Your task to perform on an android device: Go to privacy settings Image 0: 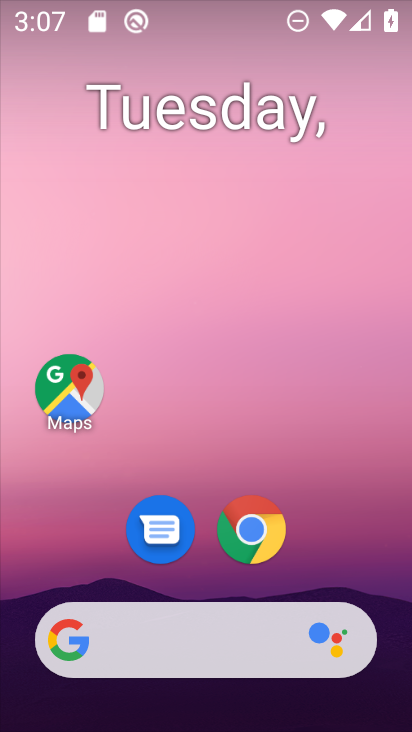
Step 0: drag from (308, 561) to (362, 211)
Your task to perform on an android device: Go to privacy settings Image 1: 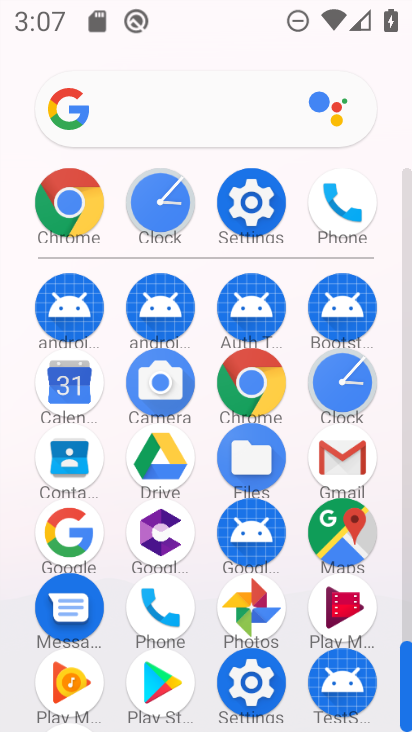
Step 1: click (256, 178)
Your task to perform on an android device: Go to privacy settings Image 2: 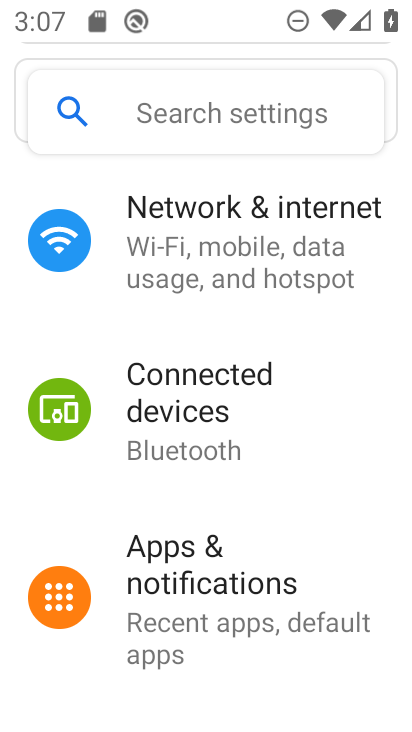
Step 2: drag from (196, 592) to (344, 181)
Your task to perform on an android device: Go to privacy settings Image 3: 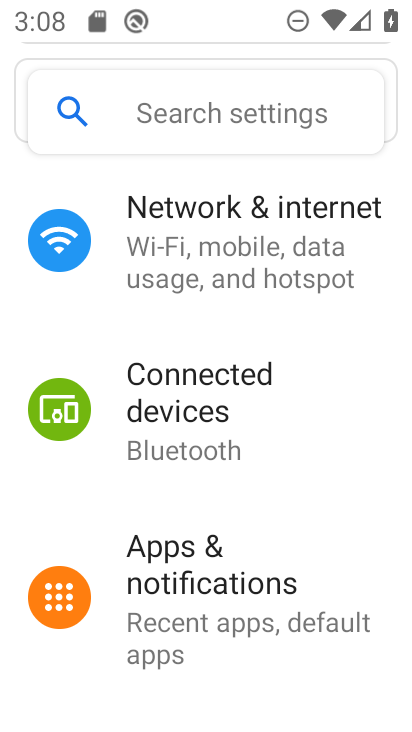
Step 3: click (243, 302)
Your task to perform on an android device: Go to privacy settings Image 4: 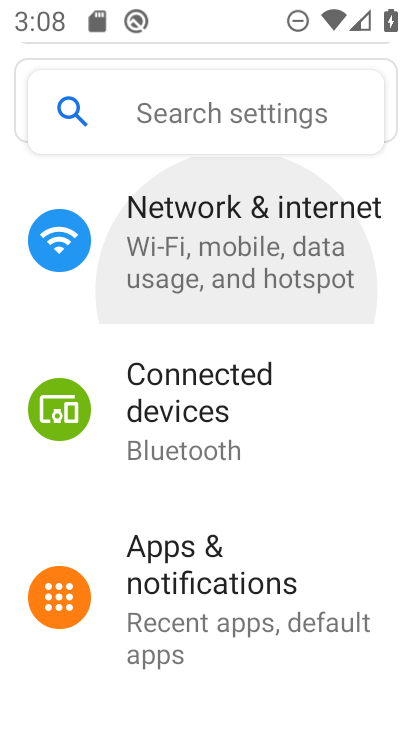
Step 4: drag from (166, 599) to (264, 306)
Your task to perform on an android device: Go to privacy settings Image 5: 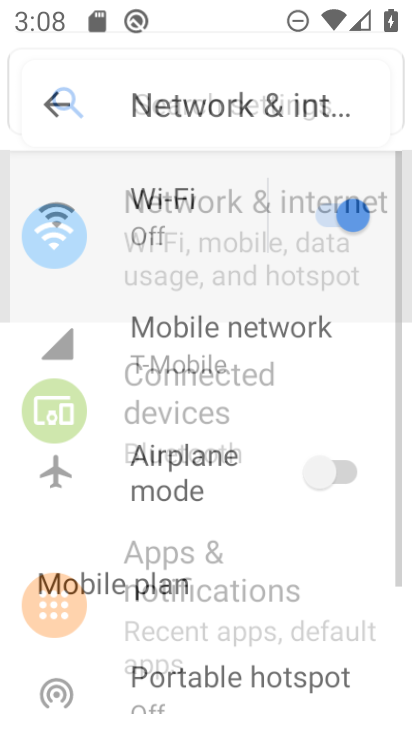
Step 5: drag from (225, 597) to (288, 244)
Your task to perform on an android device: Go to privacy settings Image 6: 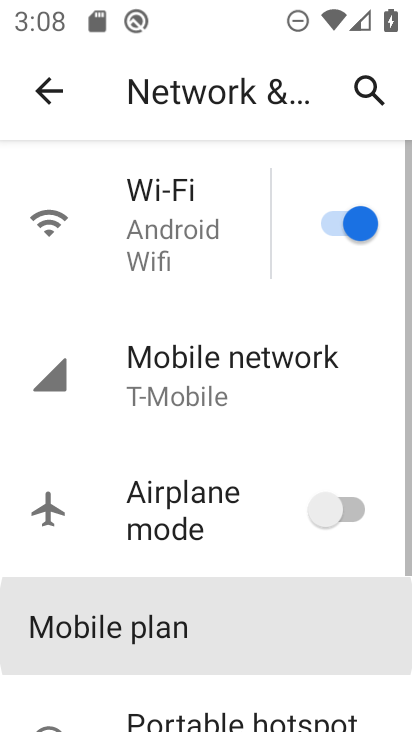
Step 6: drag from (255, 568) to (303, 299)
Your task to perform on an android device: Go to privacy settings Image 7: 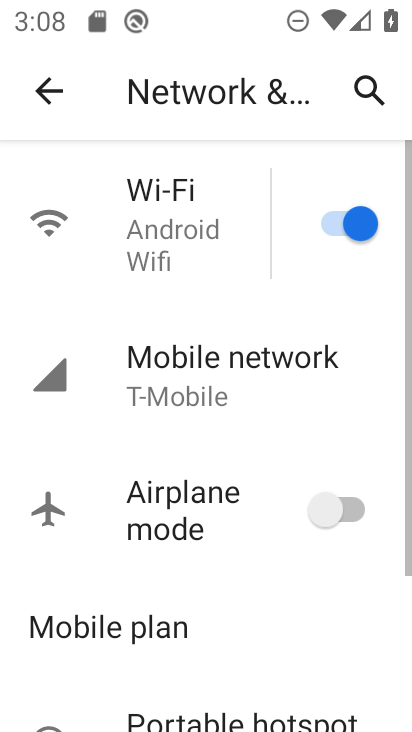
Step 7: click (77, 78)
Your task to perform on an android device: Go to privacy settings Image 8: 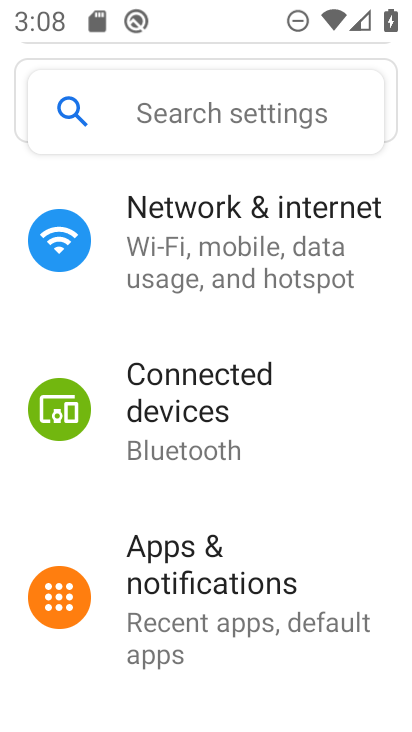
Step 8: drag from (157, 627) to (330, 179)
Your task to perform on an android device: Go to privacy settings Image 9: 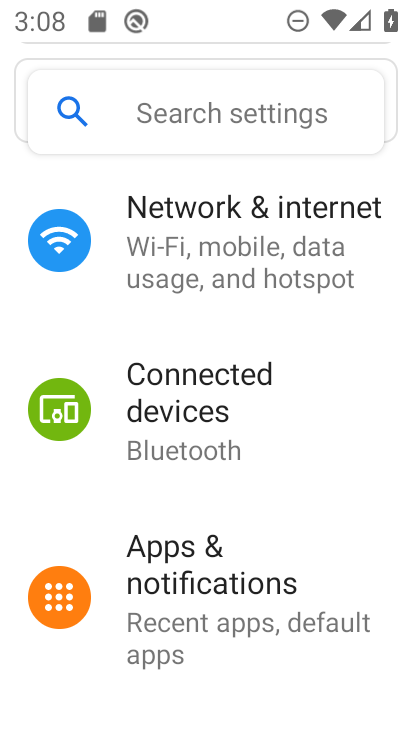
Step 9: drag from (214, 588) to (313, 157)
Your task to perform on an android device: Go to privacy settings Image 10: 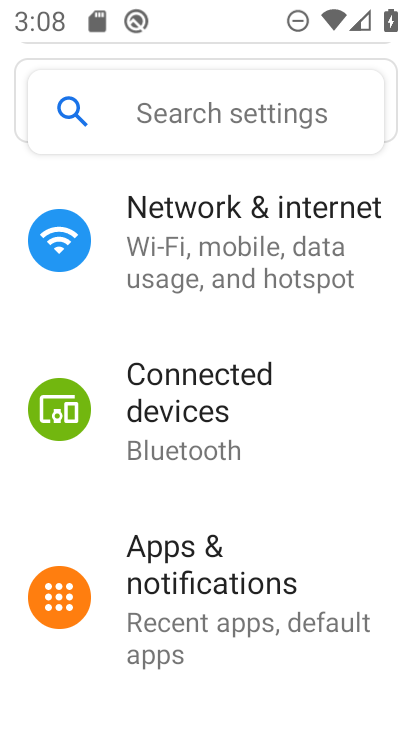
Step 10: drag from (313, 605) to (343, 334)
Your task to perform on an android device: Go to privacy settings Image 11: 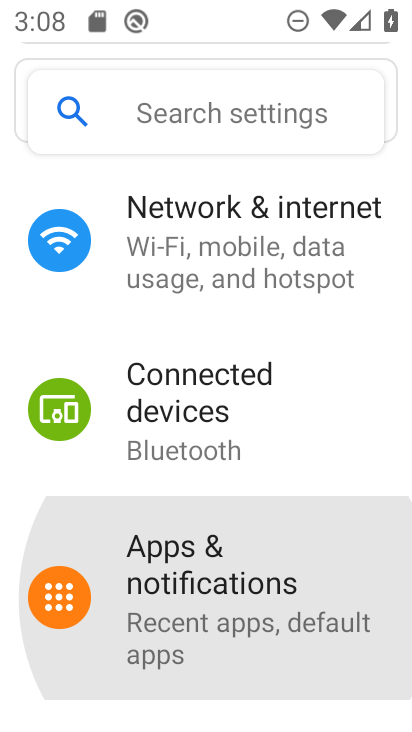
Step 11: drag from (271, 571) to (316, 277)
Your task to perform on an android device: Go to privacy settings Image 12: 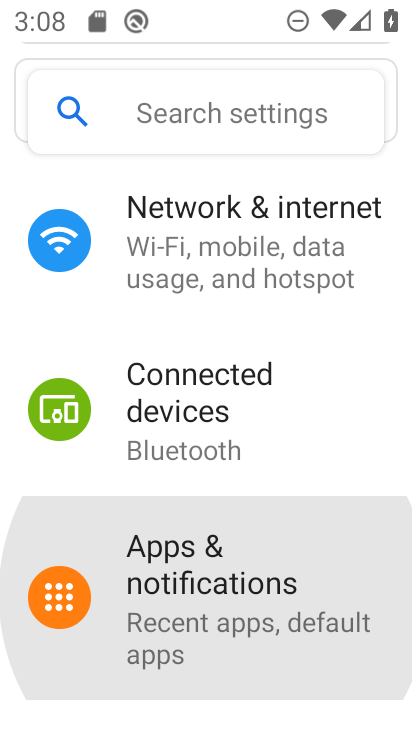
Step 12: drag from (248, 567) to (273, 305)
Your task to perform on an android device: Go to privacy settings Image 13: 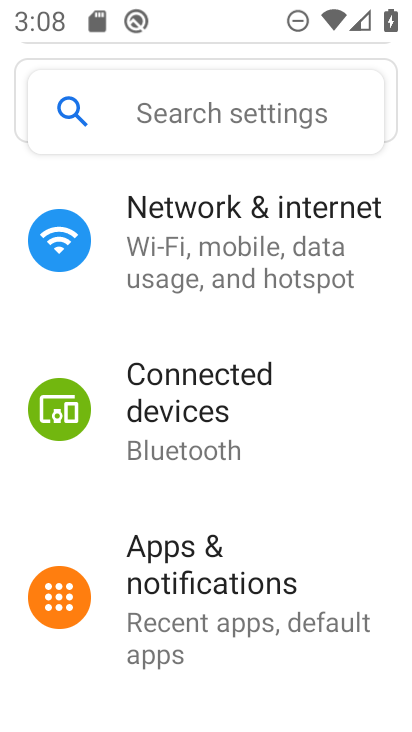
Step 13: drag from (201, 665) to (202, 436)
Your task to perform on an android device: Go to privacy settings Image 14: 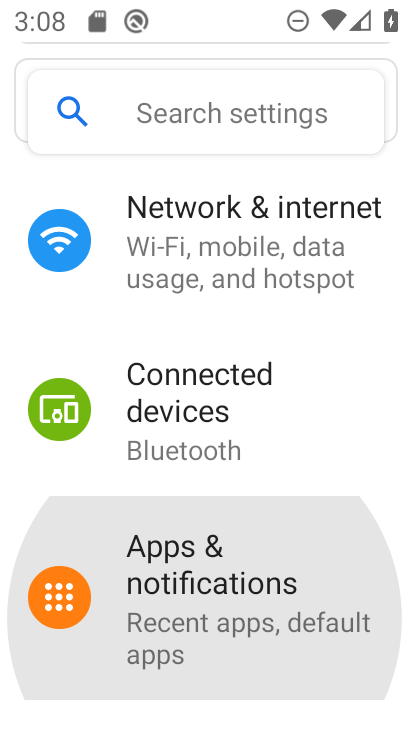
Step 14: drag from (203, 618) to (228, 320)
Your task to perform on an android device: Go to privacy settings Image 15: 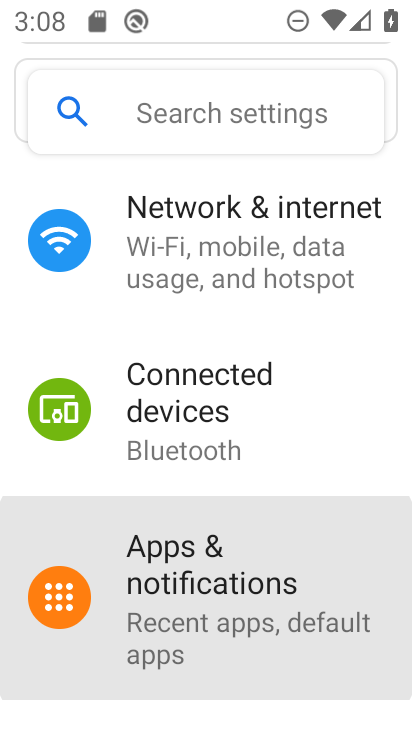
Step 15: drag from (210, 547) to (236, 357)
Your task to perform on an android device: Go to privacy settings Image 16: 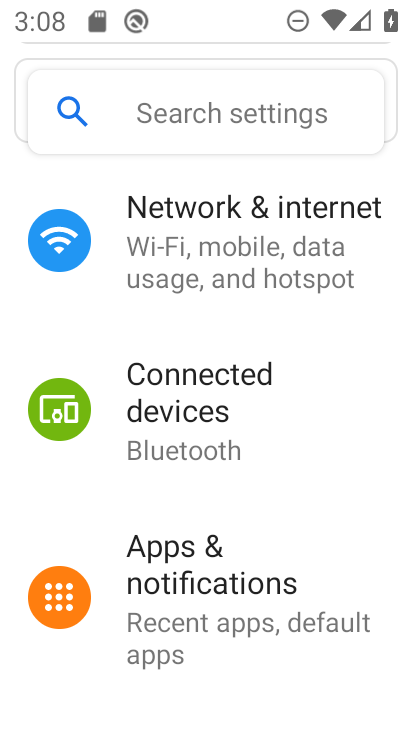
Step 16: click (288, 94)
Your task to perform on an android device: Go to privacy settings Image 17: 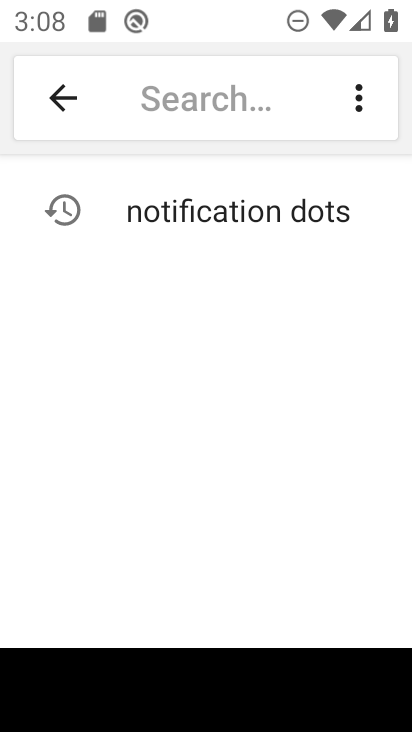
Step 17: type "privacy"
Your task to perform on an android device: Go to privacy settings Image 18: 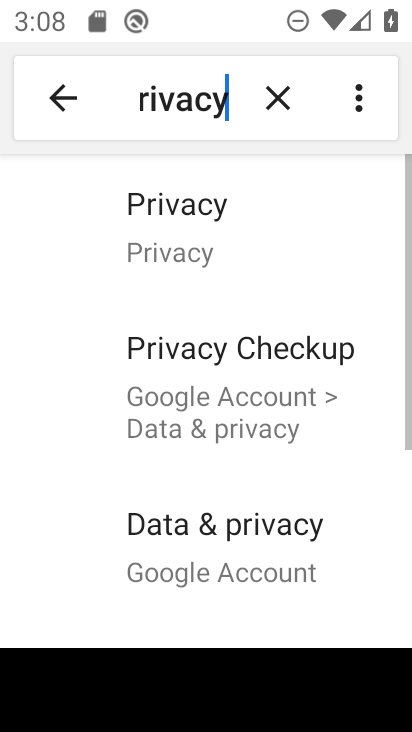
Step 18: click (270, 204)
Your task to perform on an android device: Go to privacy settings Image 19: 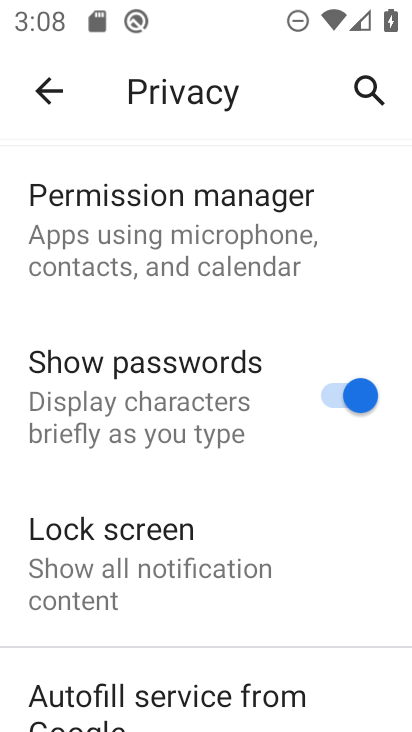
Step 19: task complete